Your task to perform on an android device: allow notifications from all sites in the chrome app Image 0: 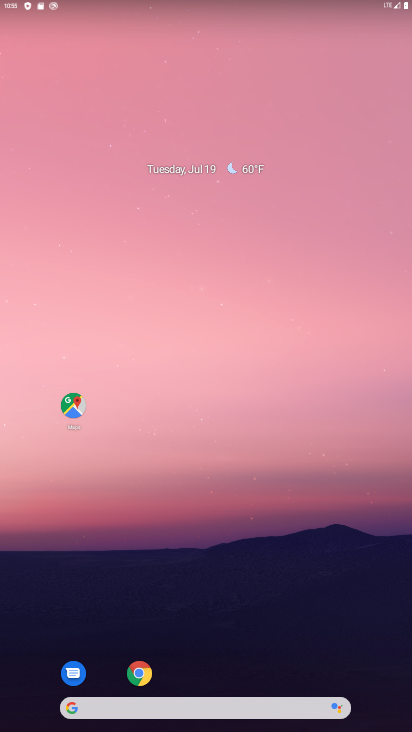
Step 0: click (139, 675)
Your task to perform on an android device: allow notifications from all sites in the chrome app Image 1: 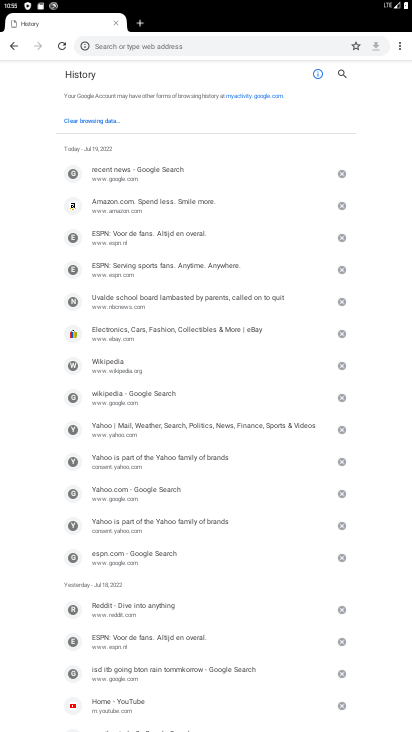
Step 1: click (394, 49)
Your task to perform on an android device: allow notifications from all sites in the chrome app Image 2: 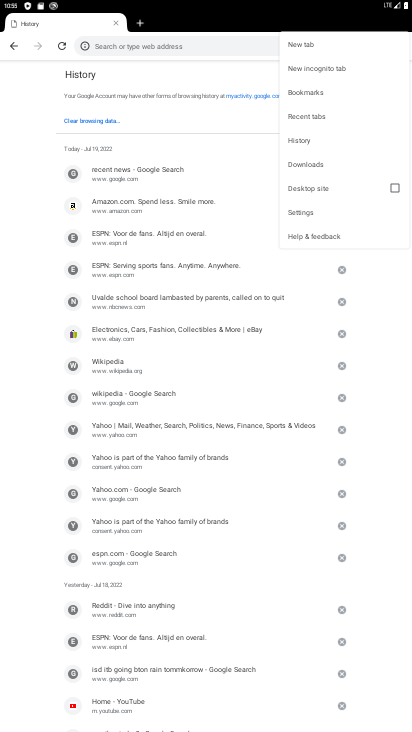
Step 2: click (295, 212)
Your task to perform on an android device: allow notifications from all sites in the chrome app Image 3: 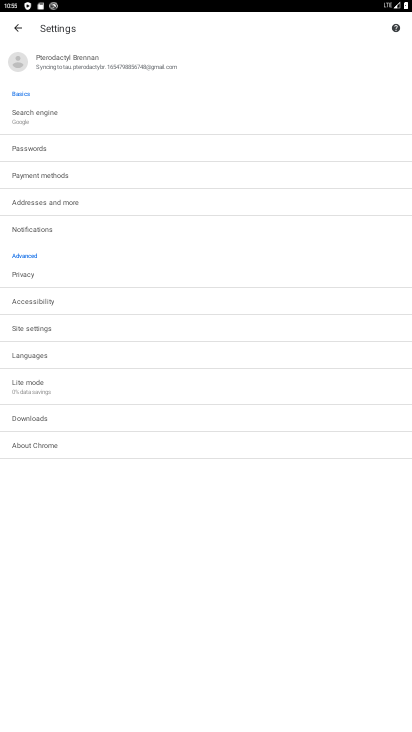
Step 3: click (50, 329)
Your task to perform on an android device: allow notifications from all sites in the chrome app Image 4: 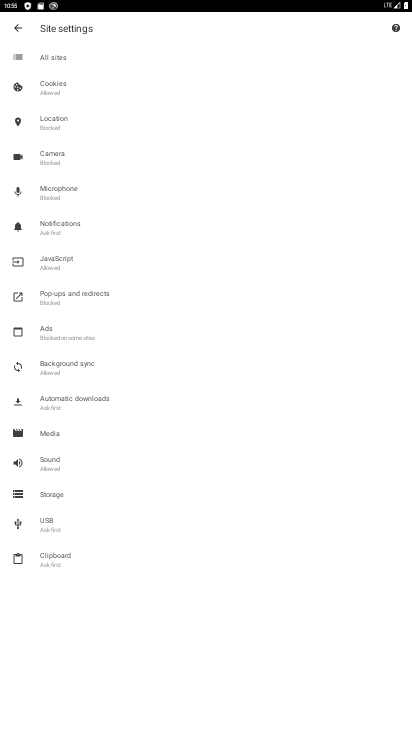
Step 4: click (56, 232)
Your task to perform on an android device: allow notifications from all sites in the chrome app Image 5: 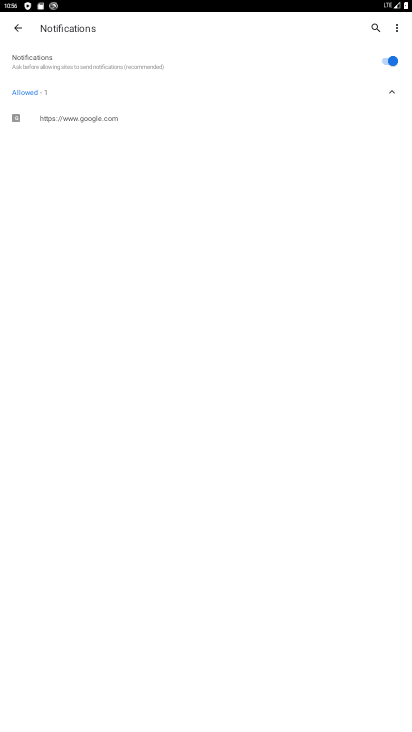
Step 5: task complete